Your task to perform on an android device: open a new tab in the chrome app Image 0: 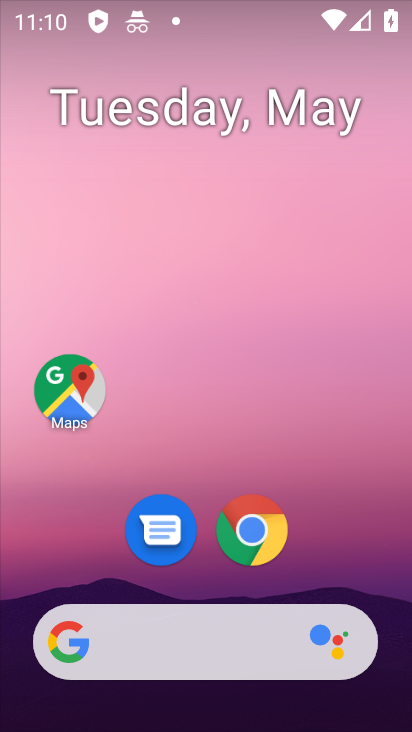
Step 0: click (245, 539)
Your task to perform on an android device: open a new tab in the chrome app Image 1: 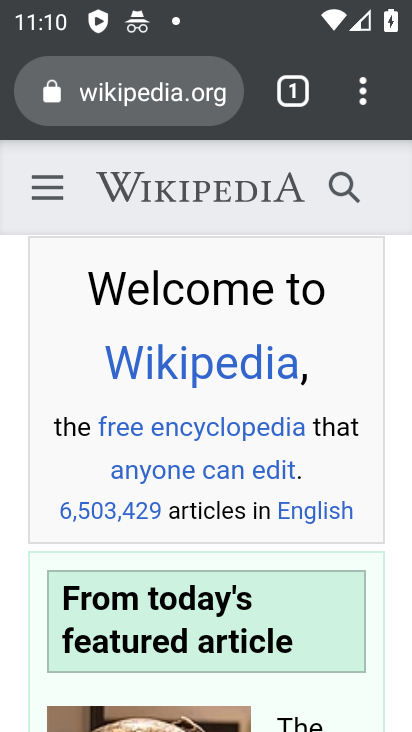
Step 1: task complete